Your task to perform on an android device: Open privacy settings Image 0: 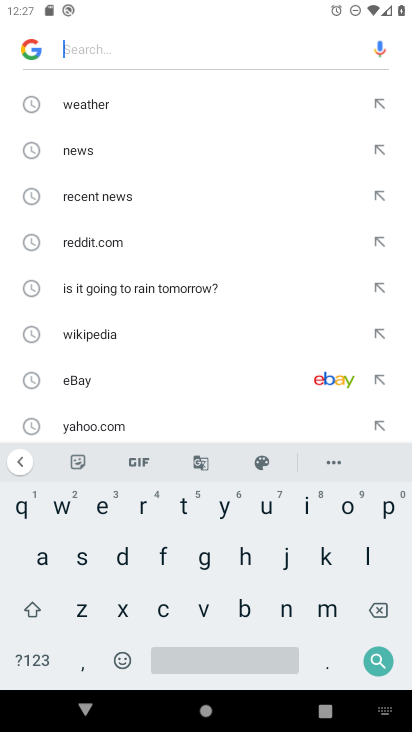
Step 0: press home button
Your task to perform on an android device: Open privacy settings Image 1: 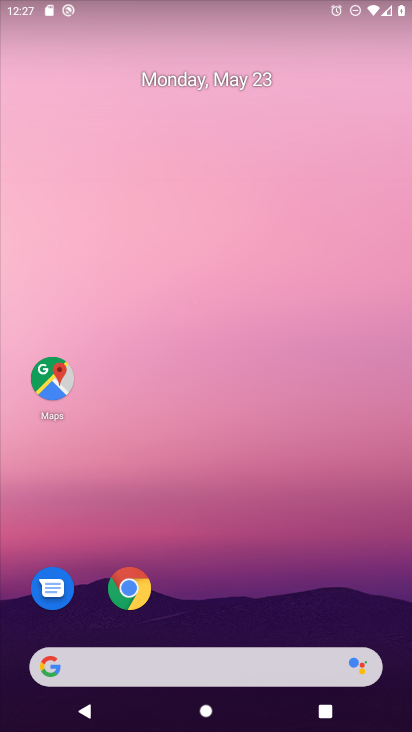
Step 1: drag from (257, 672) to (214, 74)
Your task to perform on an android device: Open privacy settings Image 2: 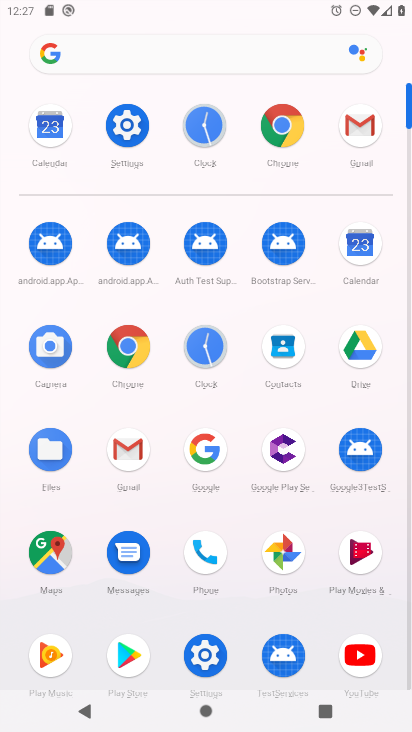
Step 2: click (203, 656)
Your task to perform on an android device: Open privacy settings Image 3: 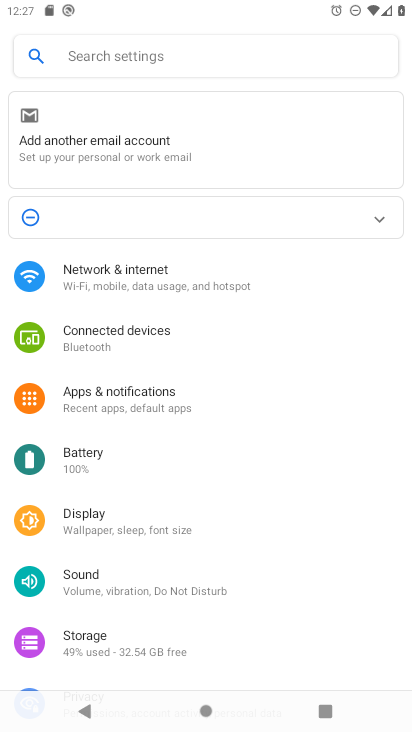
Step 3: drag from (200, 617) to (203, 320)
Your task to perform on an android device: Open privacy settings Image 4: 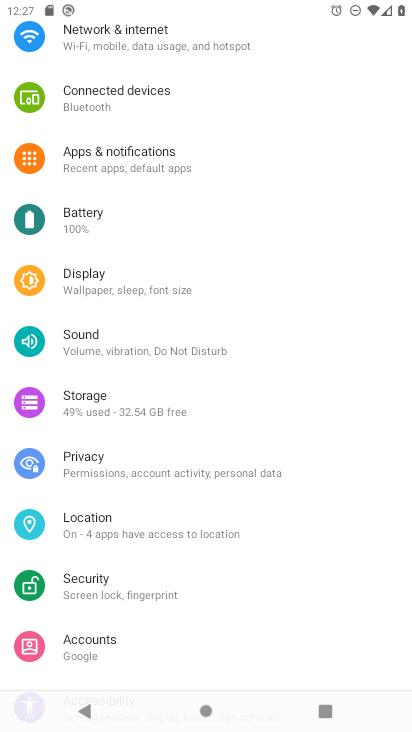
Step 4: click (105, 470)
Your task to perform on an android device: Open privacy settings Image 5: 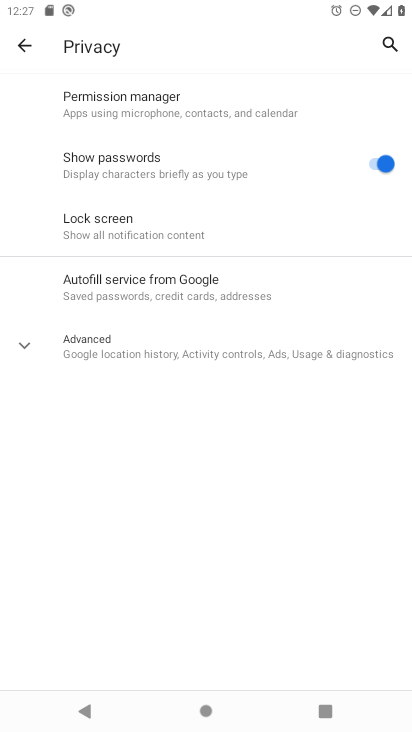
Step 5: task complete